Your task to perform on an android device: set the stopwatch Image 0: 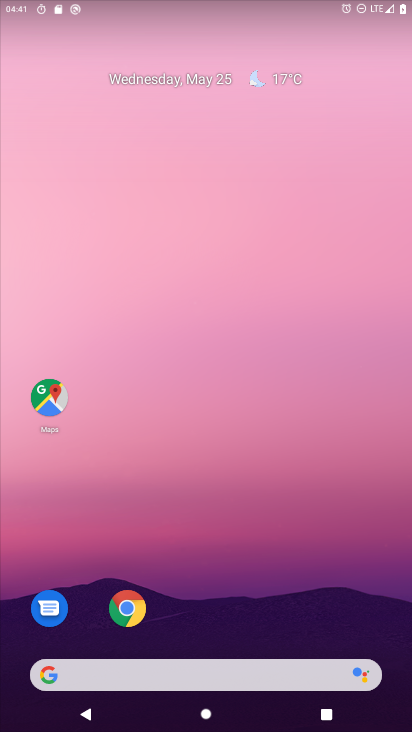
Step 0: drag from (242, 599) to (241, 139)
Your task to perform on an android device: set the stopwatch Image 1: 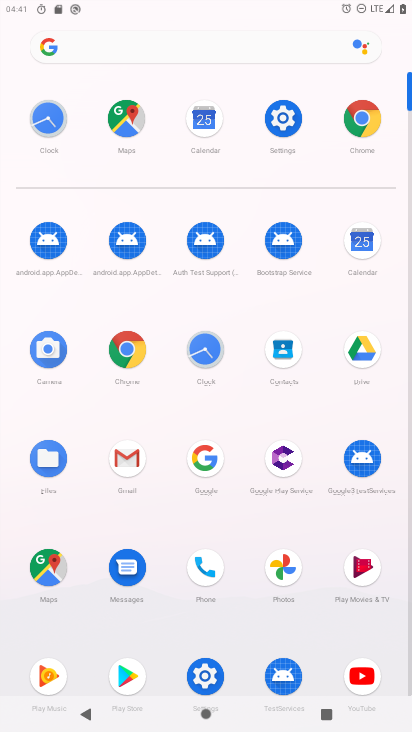
Step 1: click (192, 344)
Your task to perform on an android device: set the stopwatch Image 2: 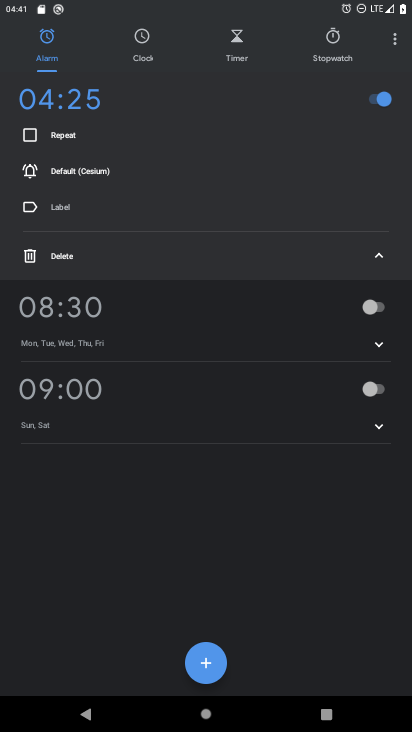
Step 2: click (334, 49)
Your task to perform on an android device: set the stopwatch Image 3: 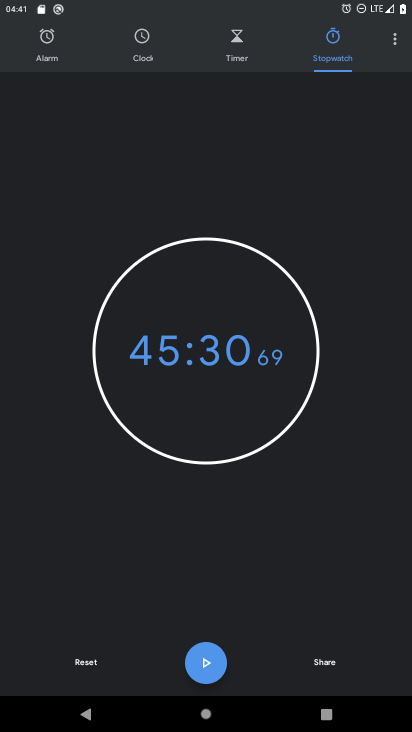
Step 3: task complete